Your task to perform on an android device: install app "Upside-Cash back on gas & food" Image 0: 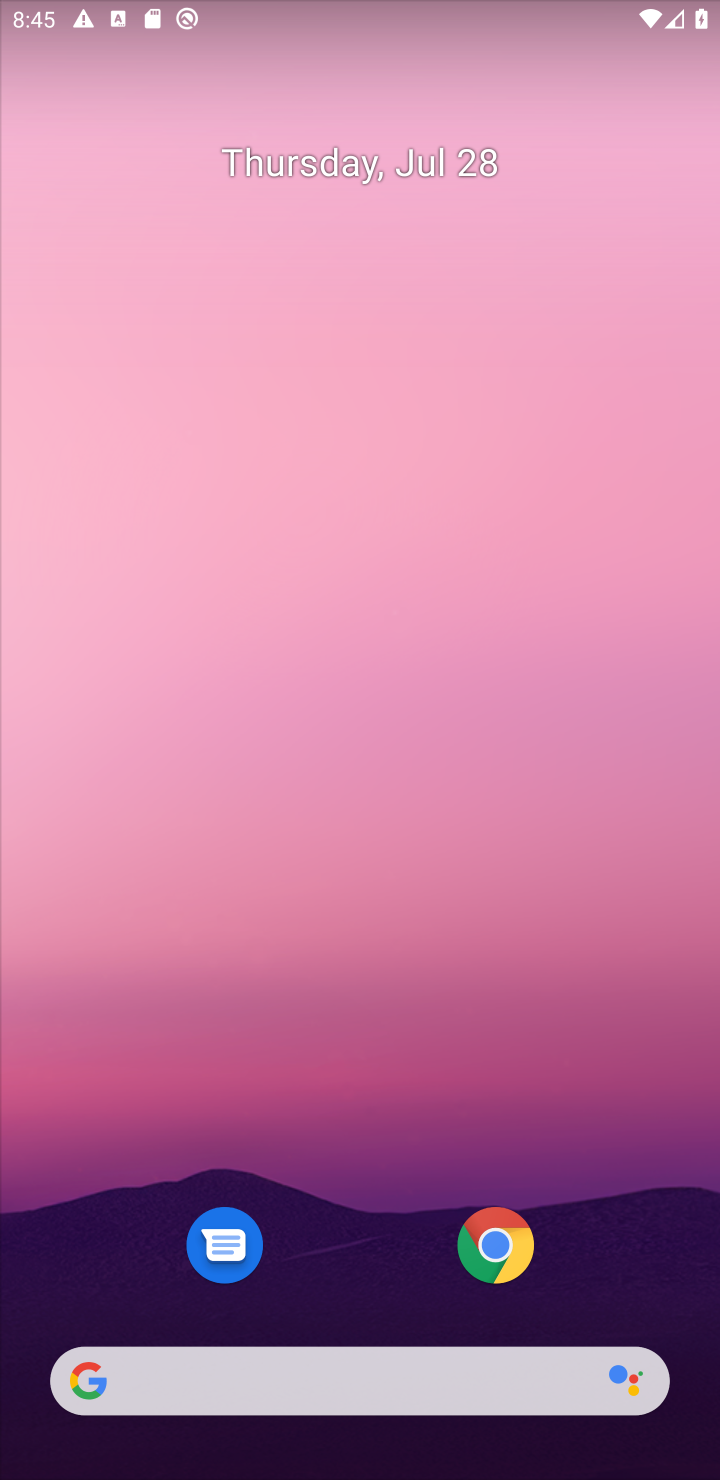
Step 0: drag from (353, 1280) to (344, 41)
Your task to perform on an android device: install app "Upside-Cash back on gas & food" Image 1: 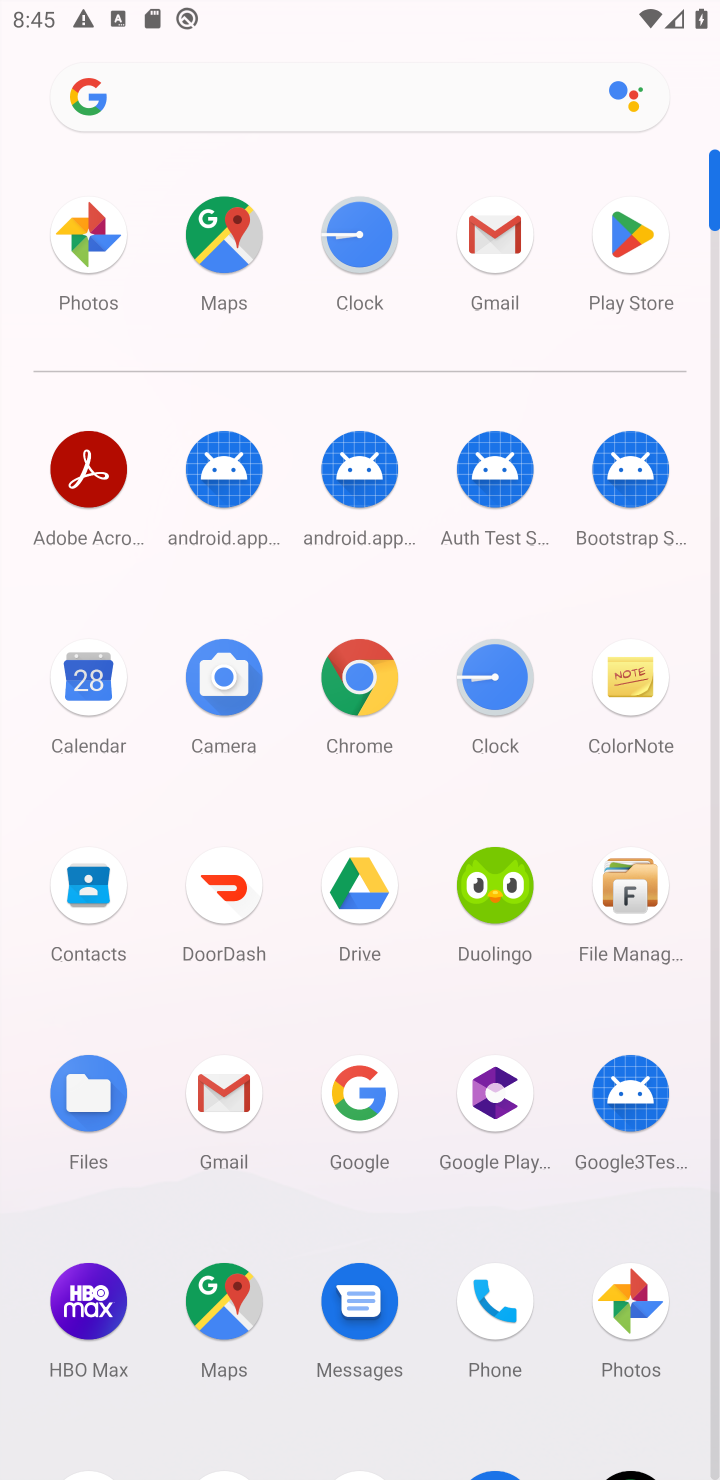
Step 1: click (637, 223)
Your task to perform on an android device: install app "Upside-Cash back on gas & food" Image 2: 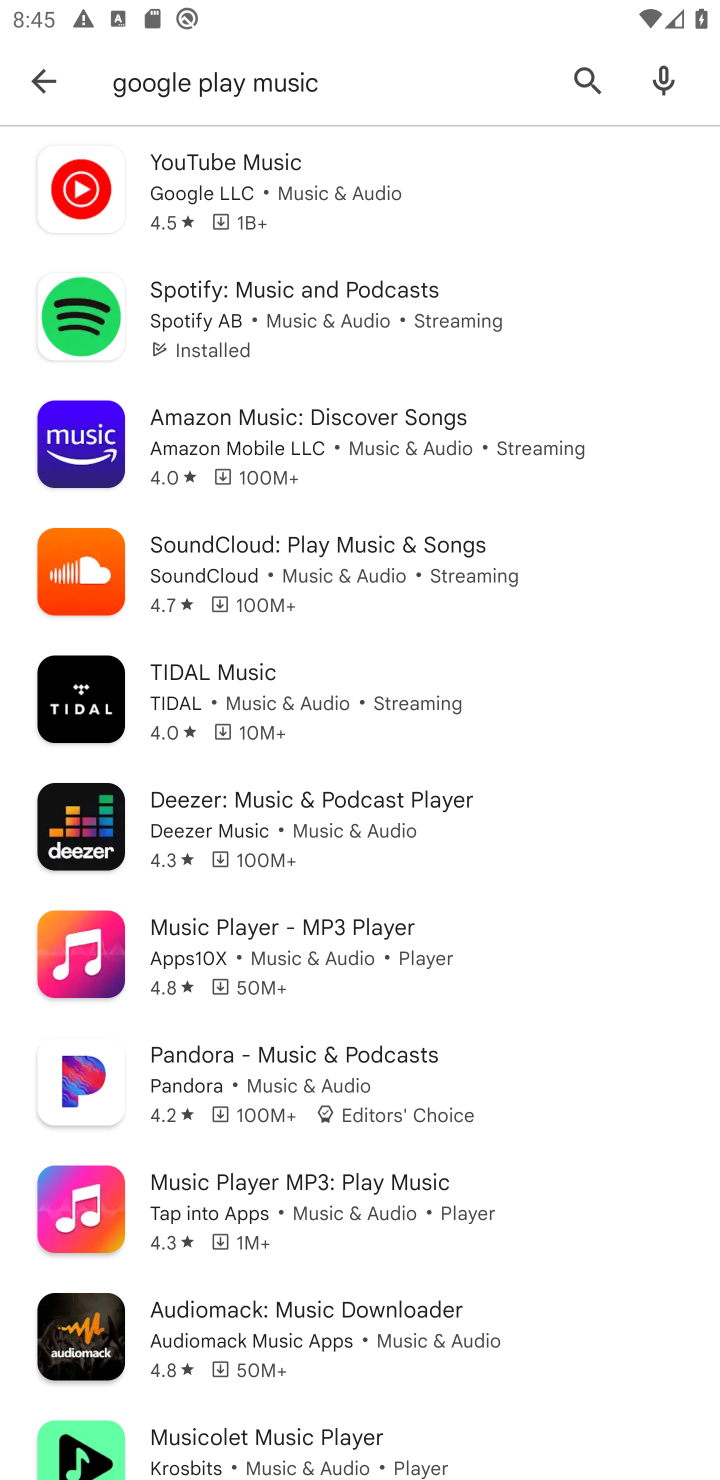
Step 2: click (600, 79)
Your task to perform on an android device: install app "Upside-Cash back on gas & food" Image 3: 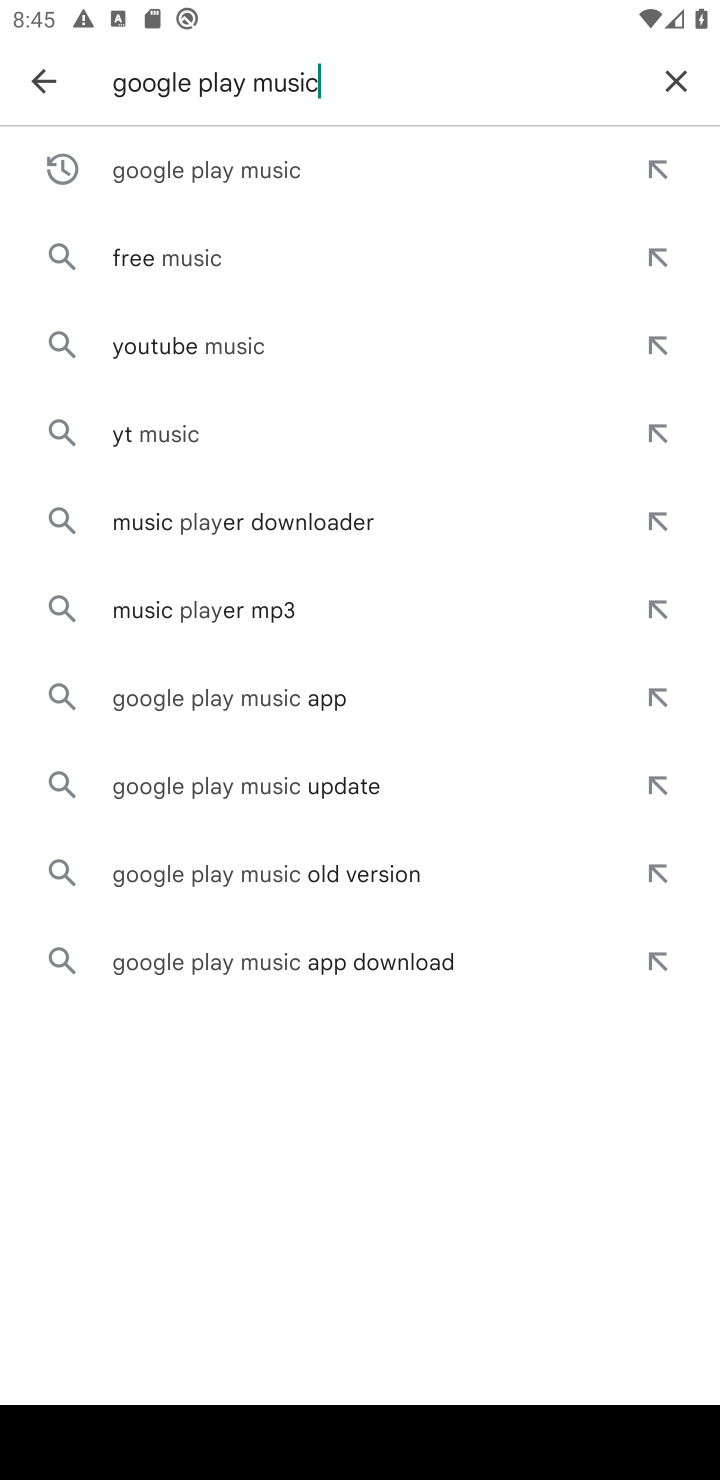
Step 3: click (687, 86)
Your task to perform on an android device: install app "Upside-Cash back on gas & food" Image 4: 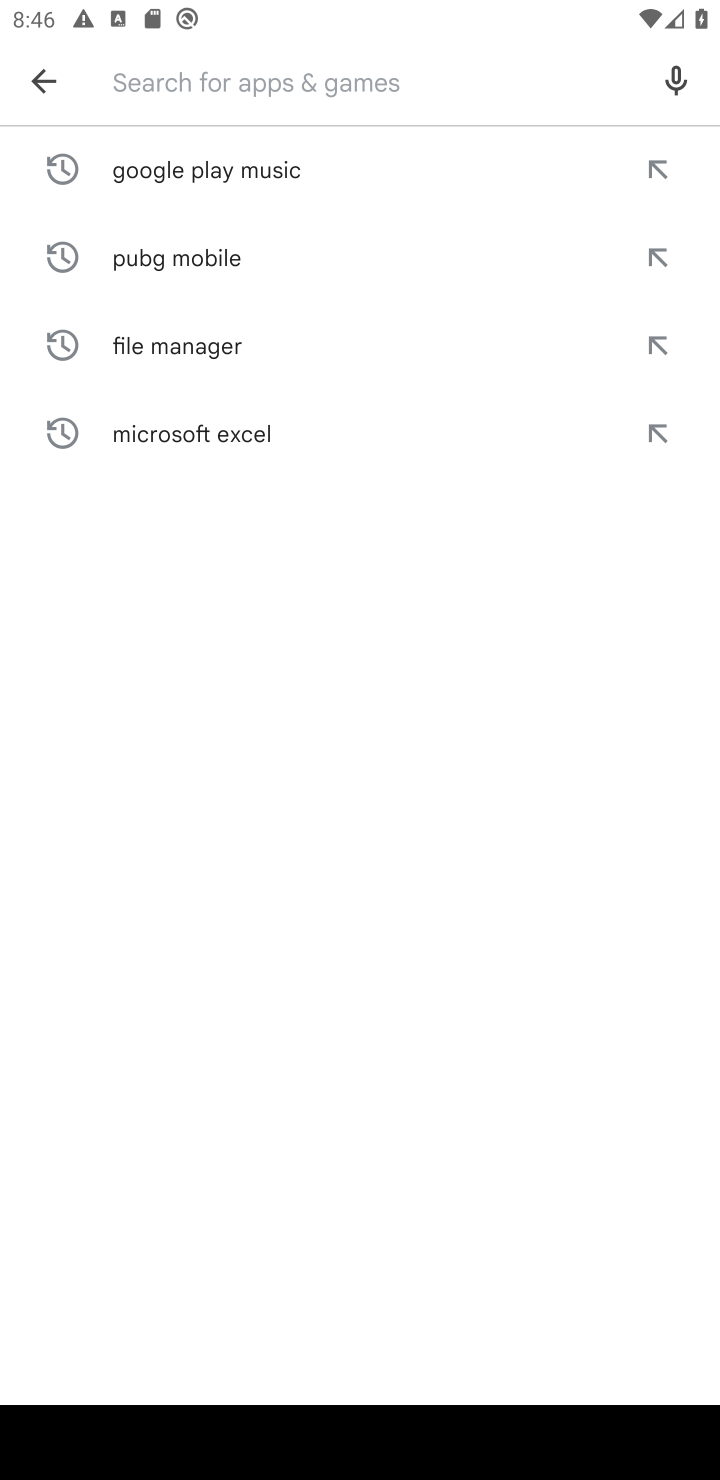
Step 4: type "Upside-Cash back on gas & food"
Your task to perform on an android device: install app "Upside-Cash back on gas & food" Image 5: 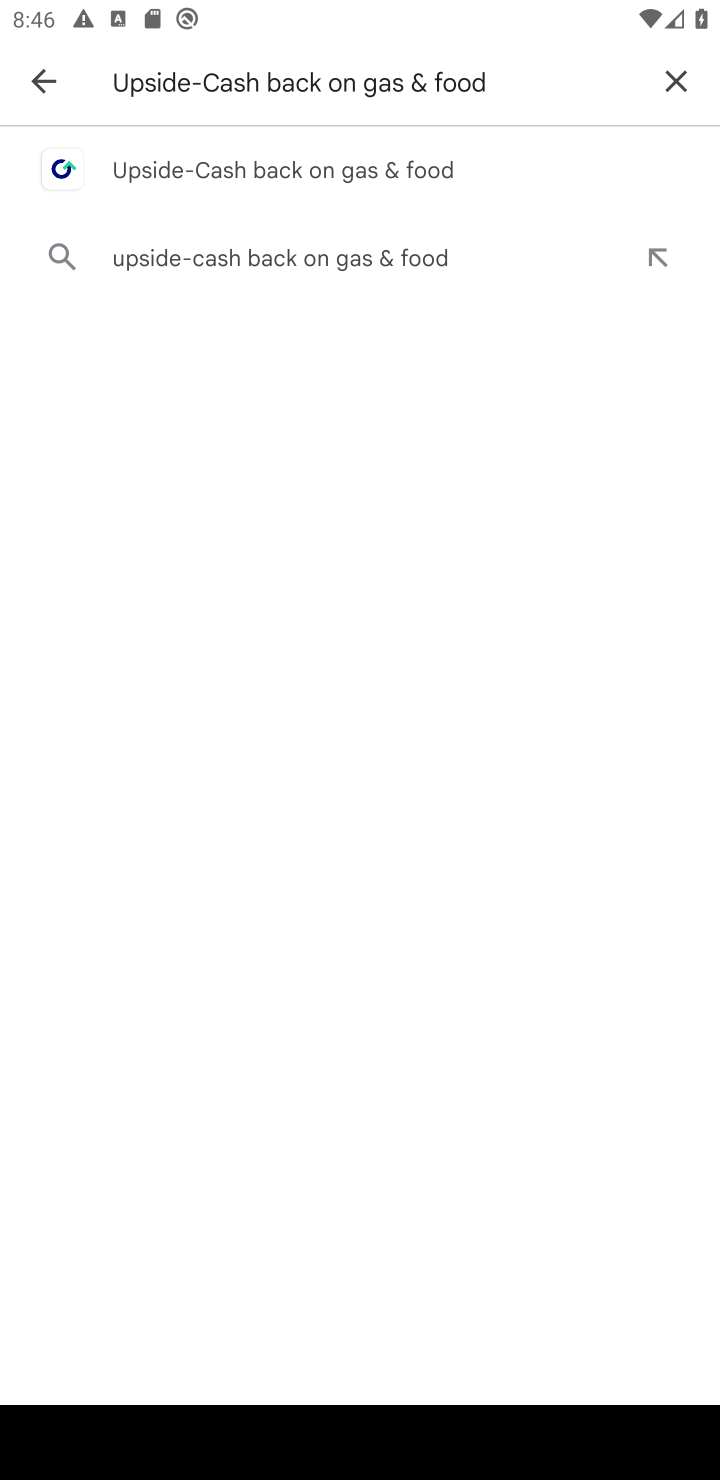
Step 5: click (377, 166)
Your task to perform on an android device: install app "Upside-Cash back on gas & food" Image 6: 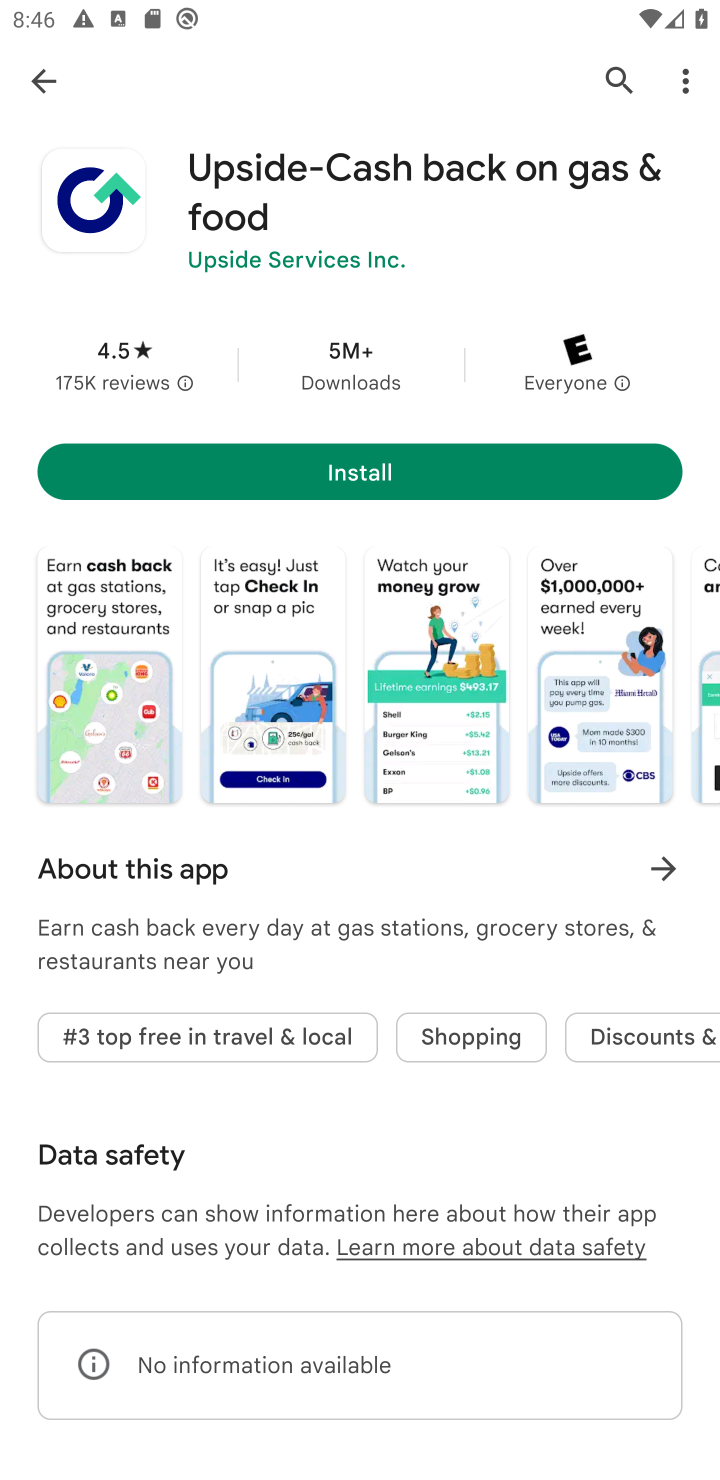
Step 6: click (336, 475)
Your task to perform on an android device: install app "Upside-Cash back on gas & food" Image 7: 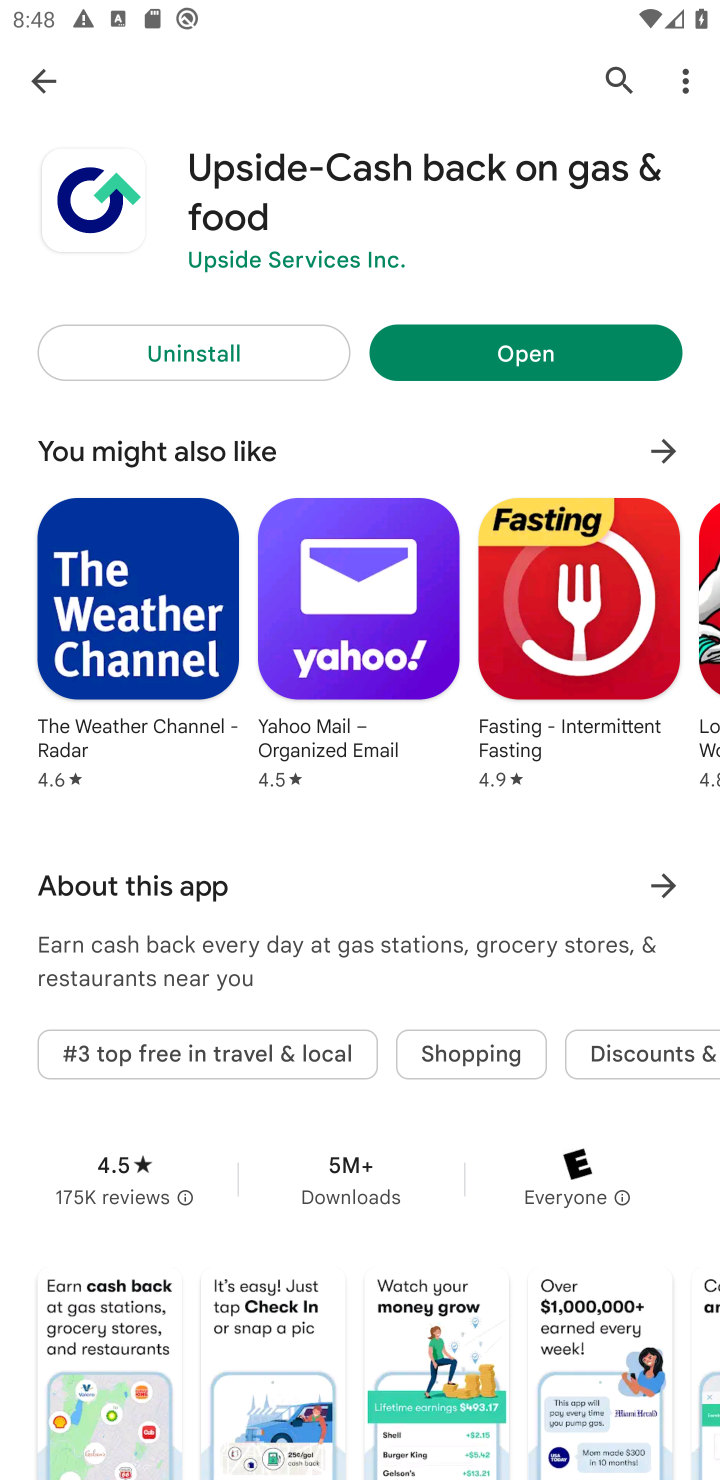
Step 7: task complete